Your task to perform on an android device: Open privacy settings Image 0: 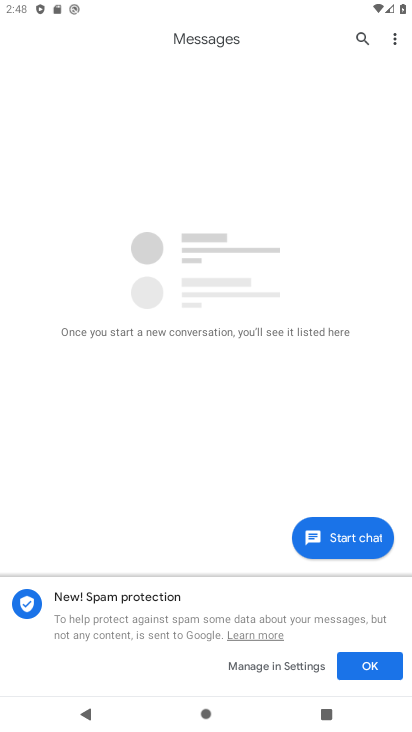
Step 0: press home button
Your task to perform on an android device: Open privacy settings Image 1: 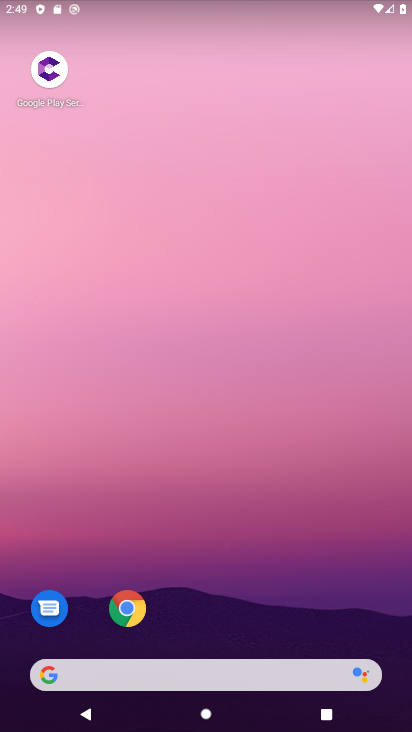
Step 1: drag from (348, 533) to (334, 9)
Your task to perform on an android device: Open privacy settings Image 2: 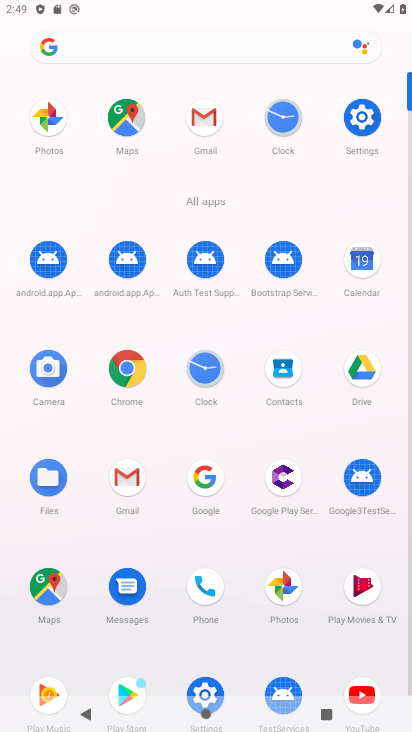
Step 2: click (138, 358)
Your task to perform on an android device: Open privacy settings Image 3: 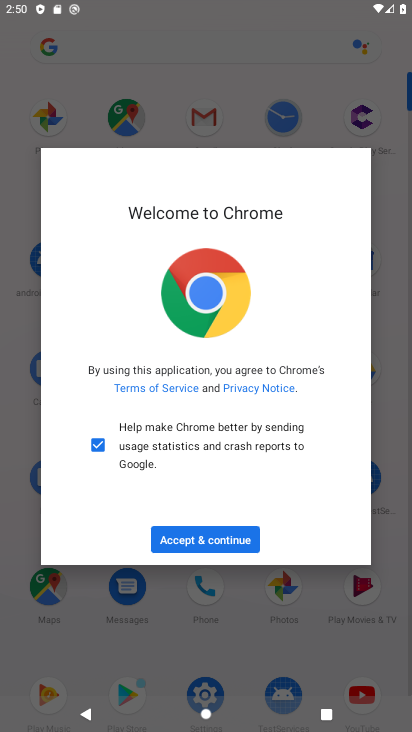
Step 3: click (200, 548)
Your task to perform on an android device: Open privacy settings Image 4: 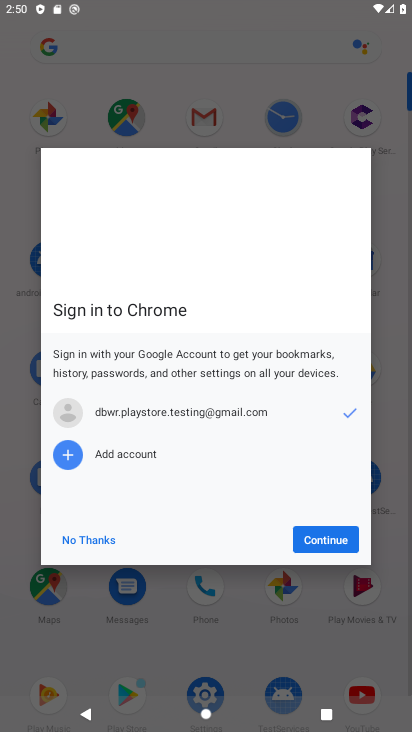
Step 4: click (87, 531)
Your task to perform on an android device: Open privacy settings Image 5: 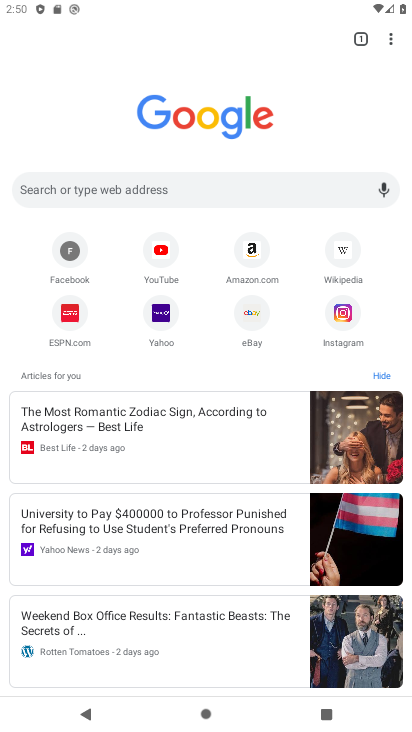
Step 5: drag from (87, 572) to (151, 235)
Your task to perform on an android device: Open privacy settings Image 6: 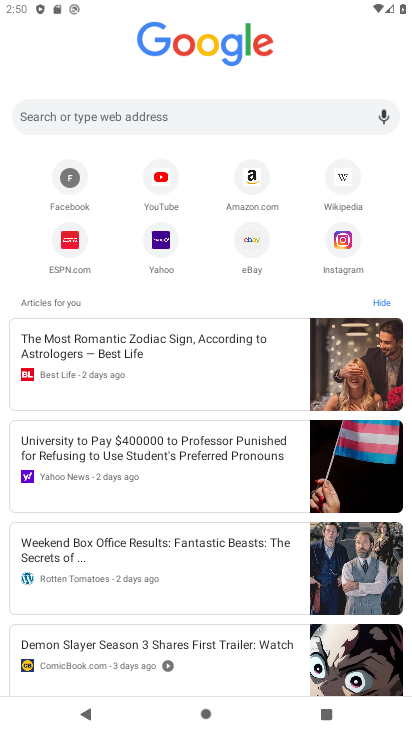
Step 6: click (203, 715)
Your task to perform on an android device: Open privacy settings Image 7: 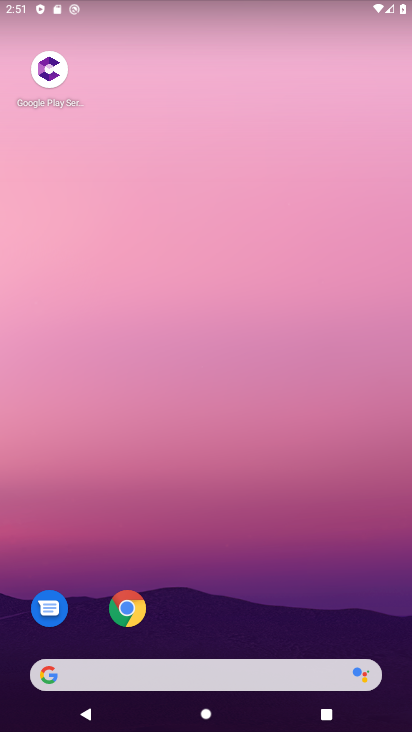
Step 7: drag from (214, 552) to (366, 18)
Your task to perform on an android device: Open privacy settings Image 8: 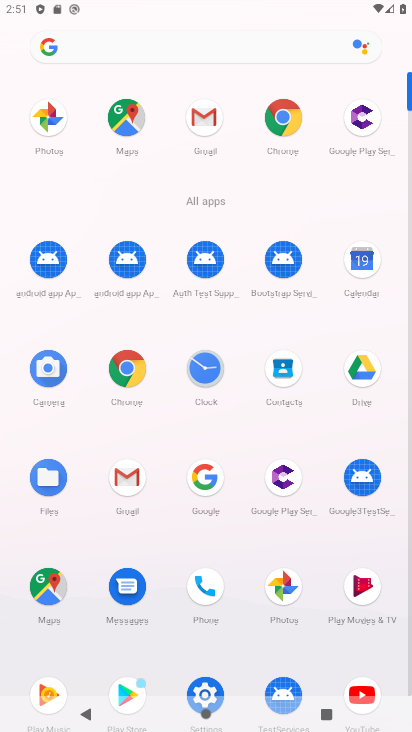
Step 8: drag from (407, 579) to (386, 448)
Your task to perform on an android device: Open privacy settings Image 9: 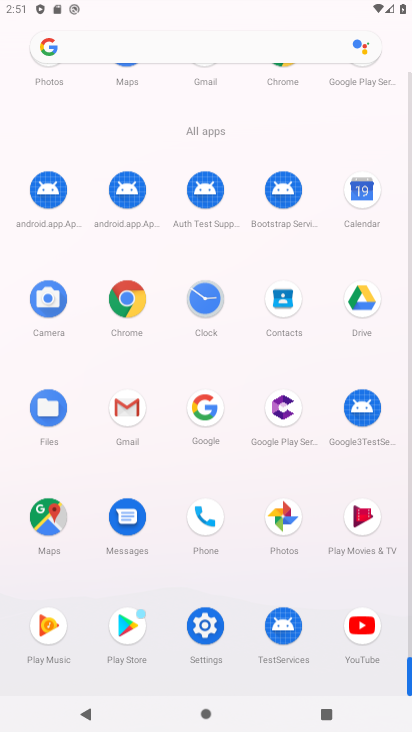
Step 9: click (212, 686)
Your task to perform on an android device: Open privacy settings Image 10: 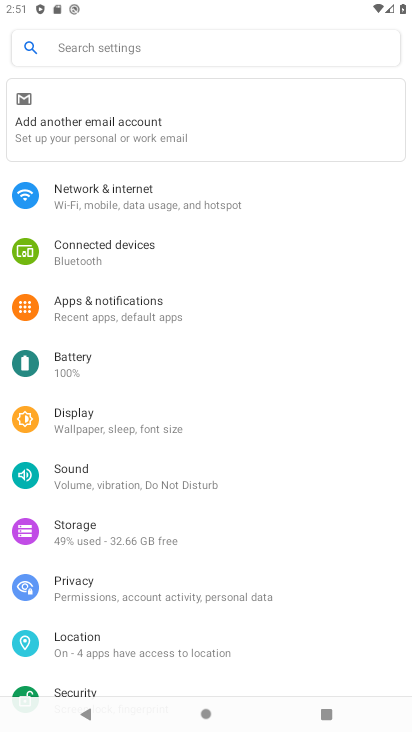
Step 10: click (106, 593)
Your task to perform on an android device: Open privacy settings Image 11: 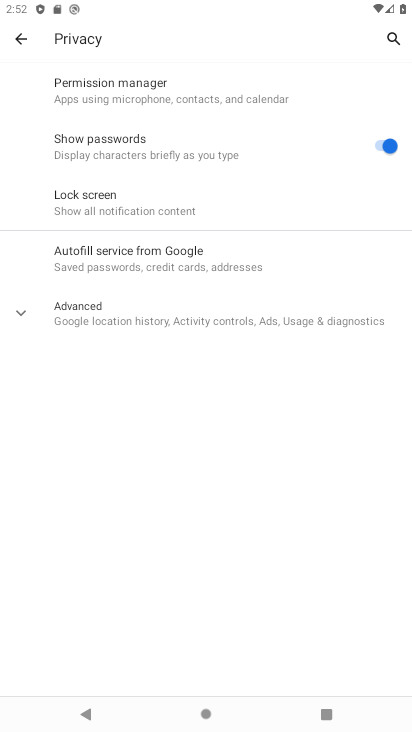
Step 11: task complete